Your task to perform on an android device: Open display settings Image 0: 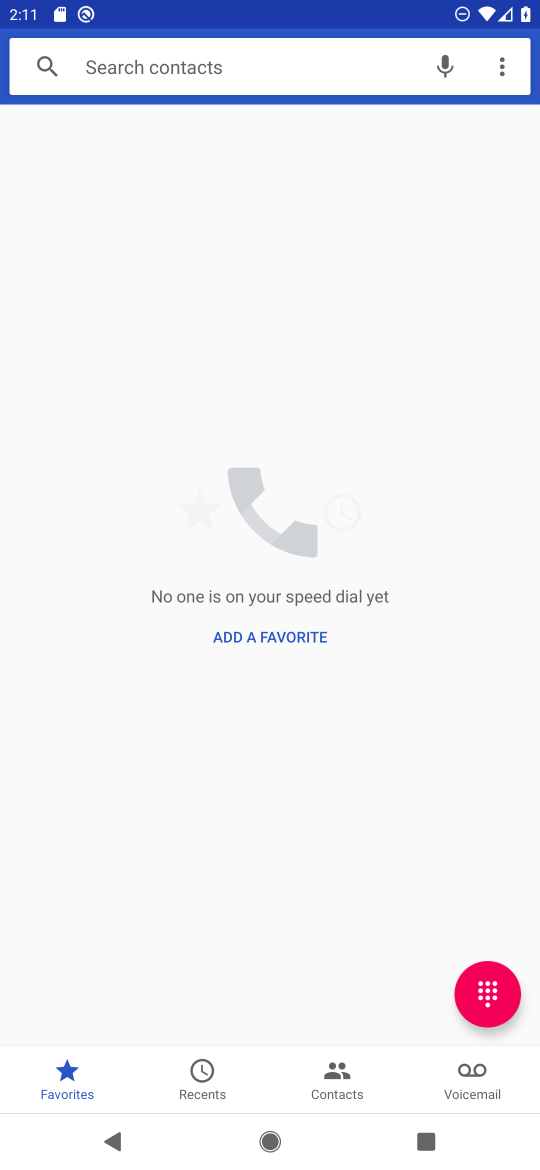
Step 0: press home button
Your task to perform on an android device: Open display settings Image 1: 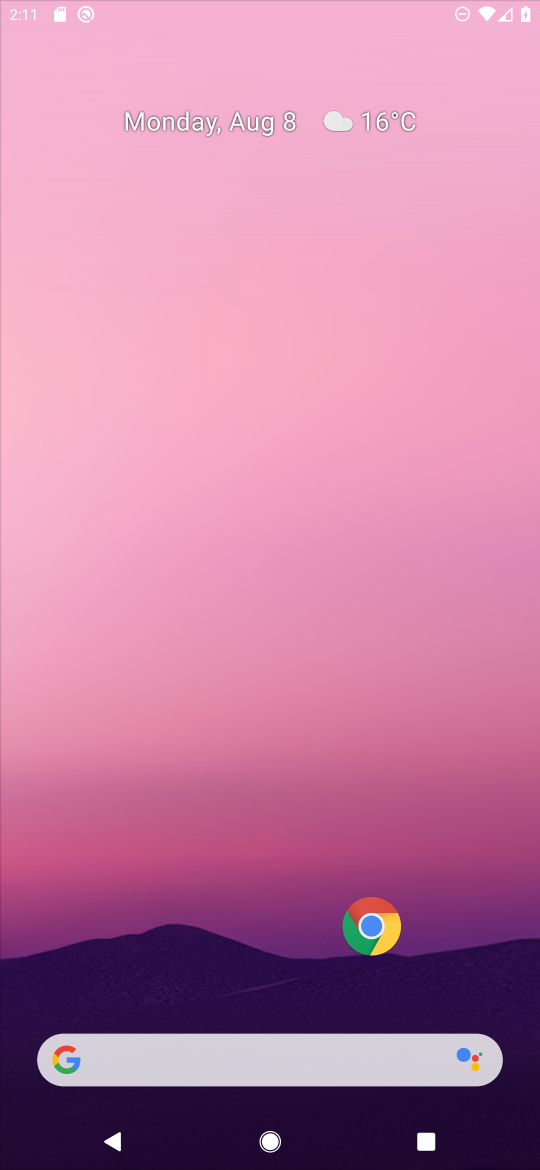
Step 1: drag from (190, 906) to (240, 203)
Your task to perform on an android device: Open display settings Image 2: 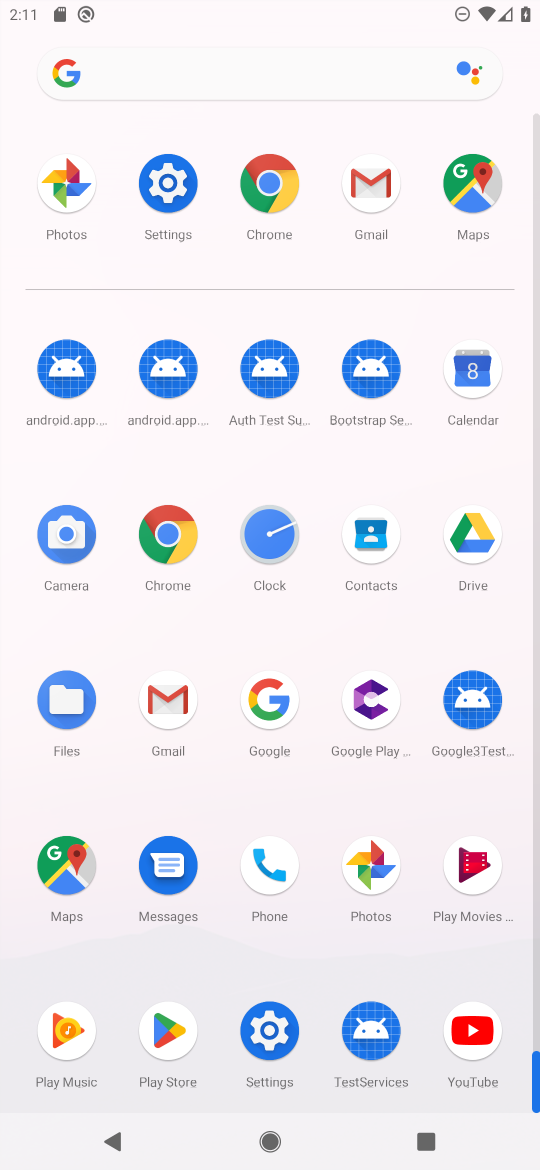
Step 2: click (160, 163)
Your task to perform on an android device: Open display settings Image 3: 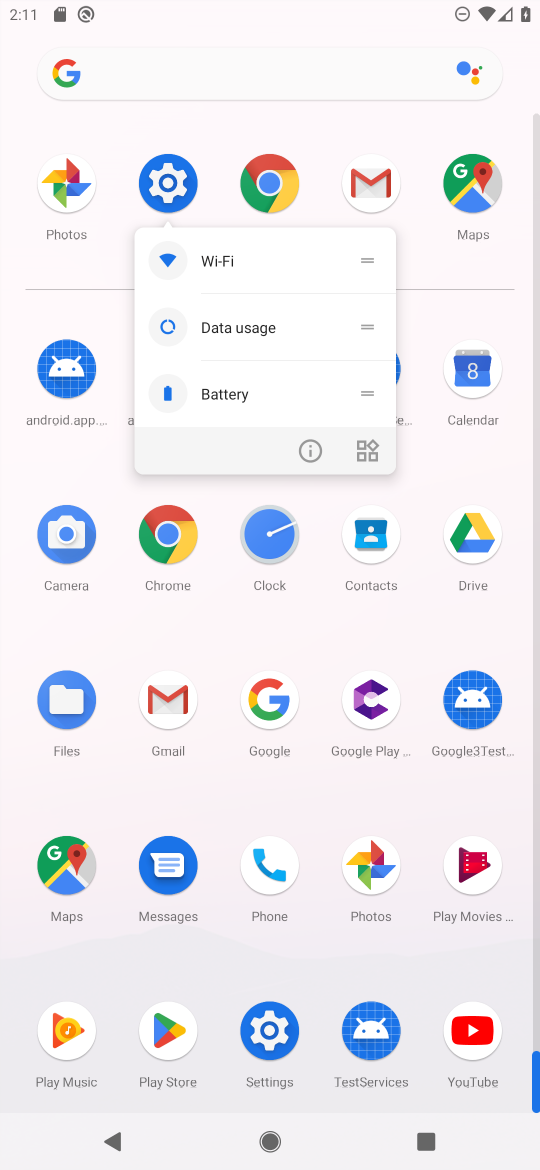
Step 3: click (170, 177)
Your task to perform on an android device: Open display settings Image 4: 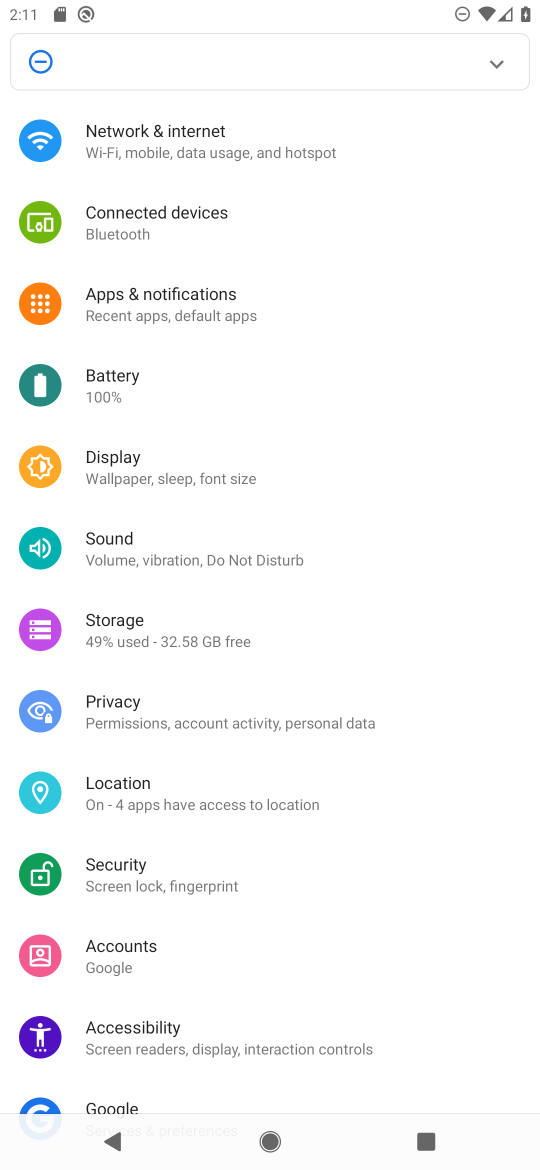
Step 4: click (151, 457)
Your task to perform on an android device: Open display settings Image 5: 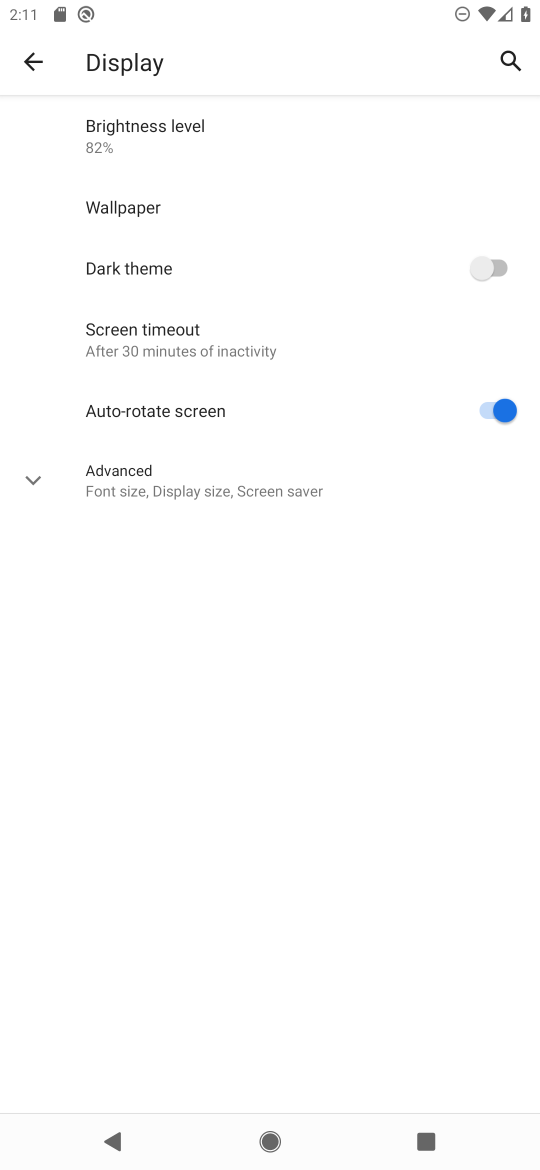
Step 5: task complete